Your task to perform on an android device: read, delete, or share a saved page in the chrome app Image 0: 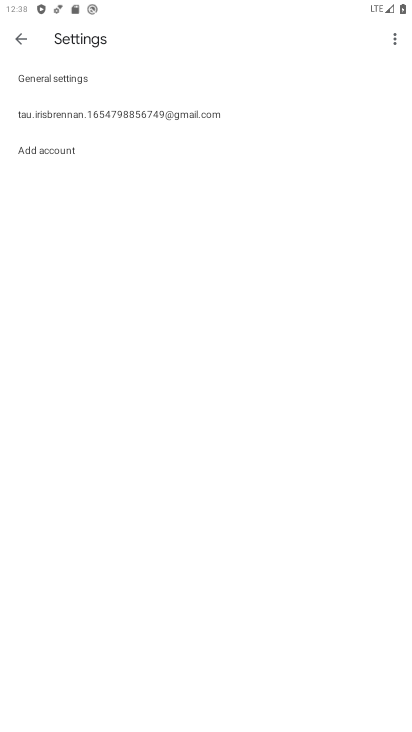
Step 0: press home button
Your task to perform on an android device: read, delete, or share a saved page in the chrome app Image 1: 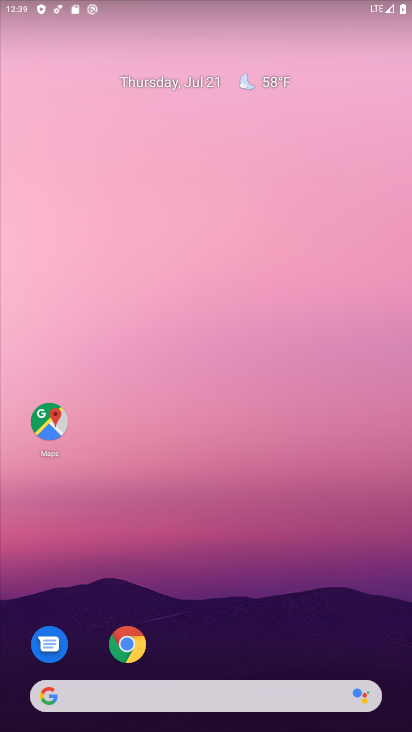
Step 1: drag from (334, 568) to (394, 110)
Your task to perform on an android device: read, delete, or share a saved page in the chrome app Image 2: 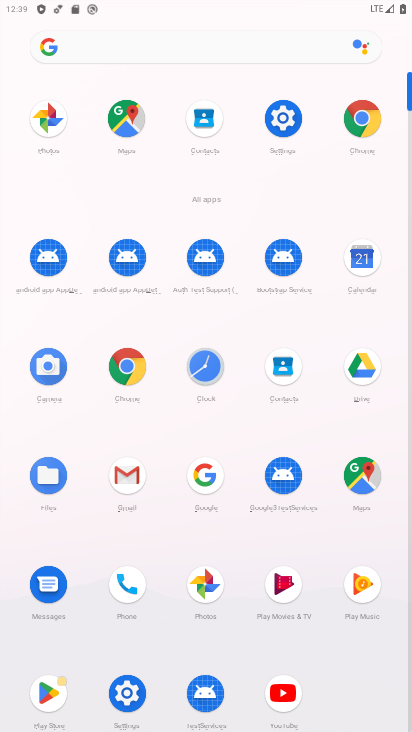
Step 2: click (115, 394)
Your task to perform on an android device: read, delete, or share a saved page in the chrome app Image 3: 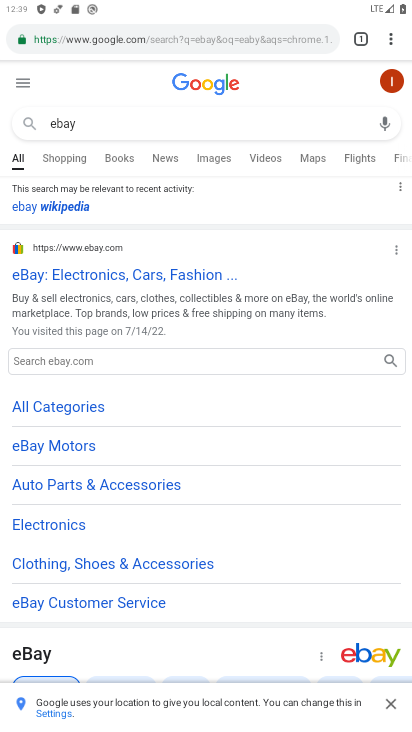
Step 3: click (391, 42)
Your task to perform on an android device: read, delete, or share a saved page in the chrome app Image 4: 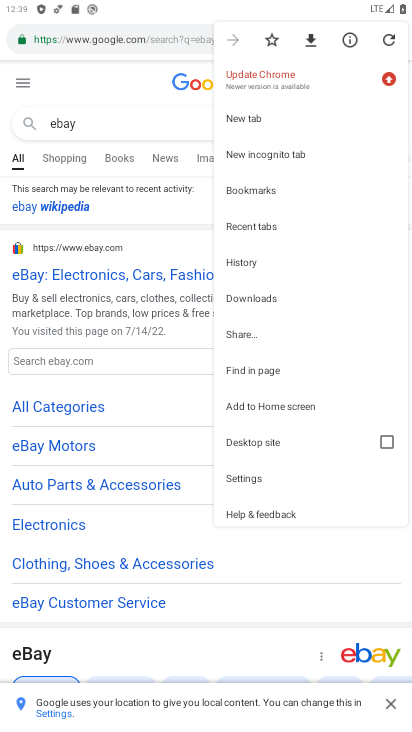
Step 4: click (280, 314)
Your task to perform on an android device: read, delete, or share a saved page in the chrome app Image 5: 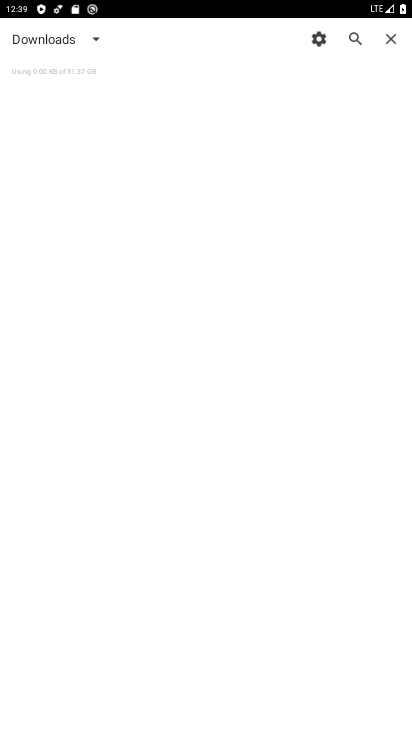
Step 5: click (75, 41)
Your task to perform on an android device: read, delete, or share a saved page in the chrome app Image 6: 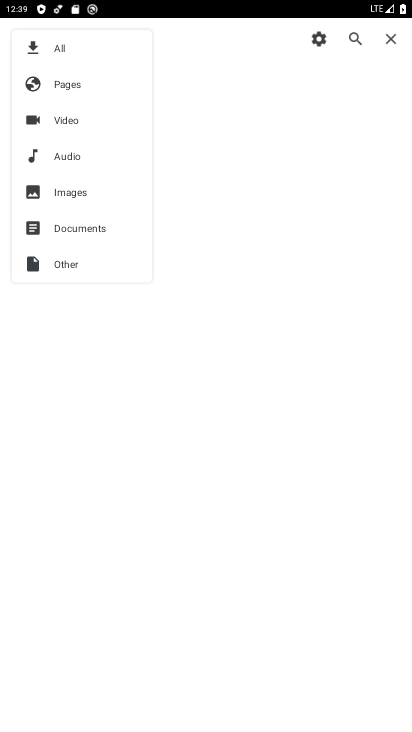
Step 6: click (80, 201)
Your task to perform on an android device: read, delete, or share a saved page in the chrome app Image 7: 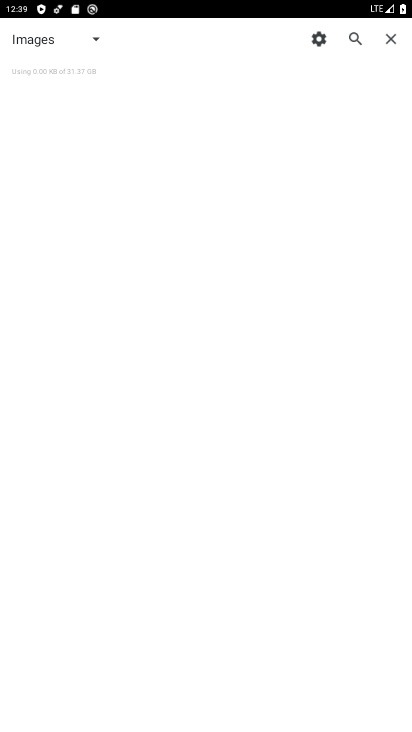
Step 7: task complete